Your task to perform on an android device: Open notification settings Image 0: 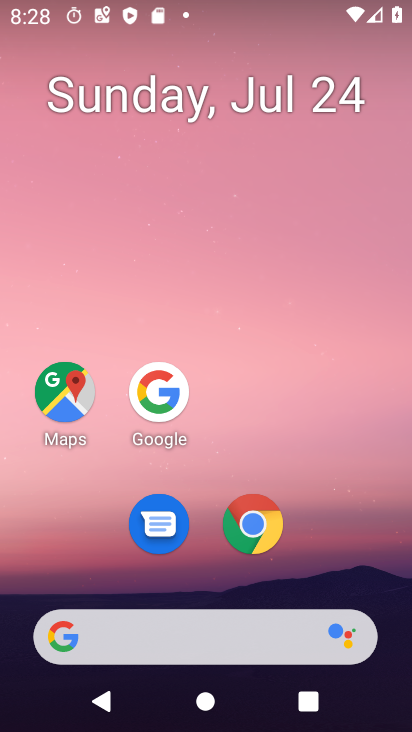
Step 0: press home button
Your task to perform on an android device: Open notification settings Image 1: 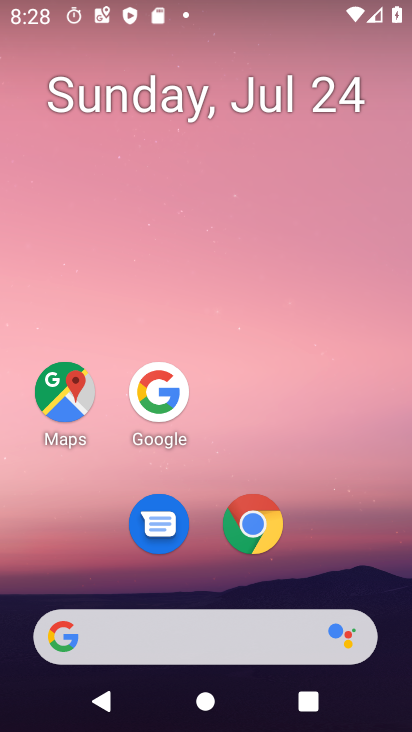
Step 1: drag from (129, 633) to (284, 52)
Your task to perform on an android device: Open notification settings Image 2: 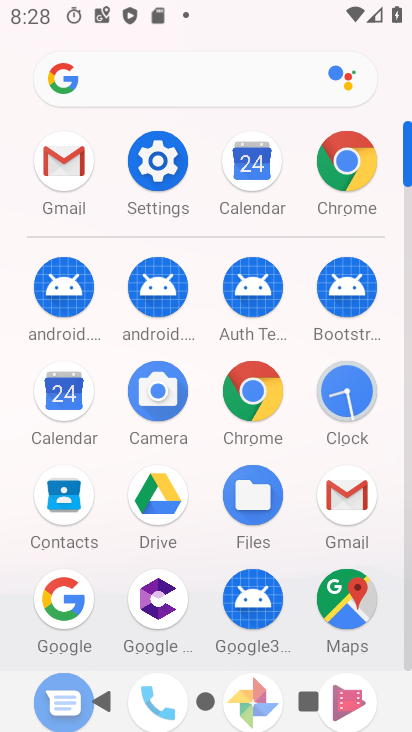
Step 2: click (157, 160)
Your task to perform on an android device: Open notification settings Image 3: 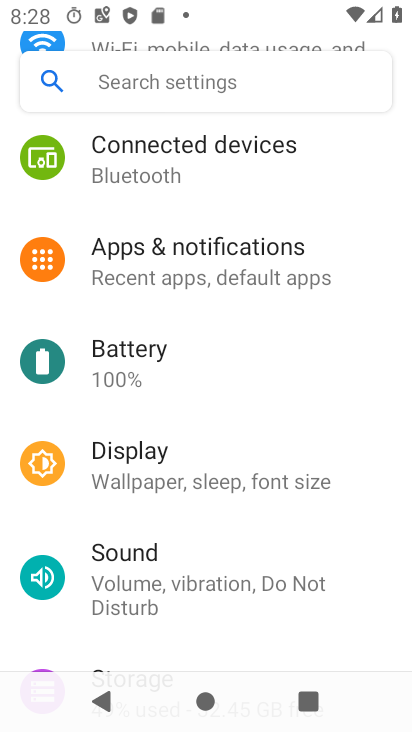
Step 3: click (257, 264)
Your task to perform on an android device: Open notification settings Image 4: 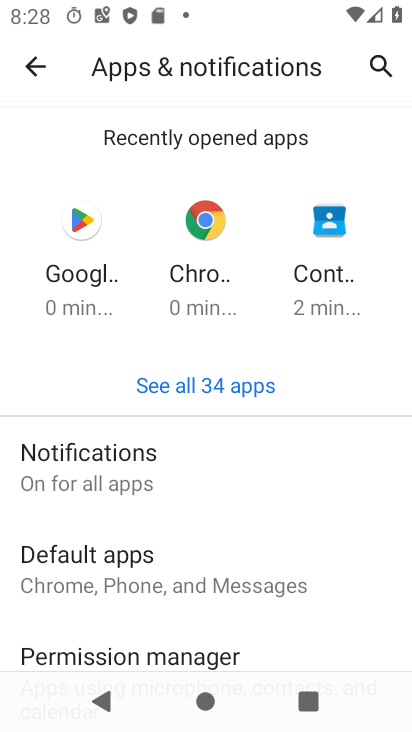
Step 4: click (122, 454)
Your task to perform on an android device: Open notification settings Image 5: 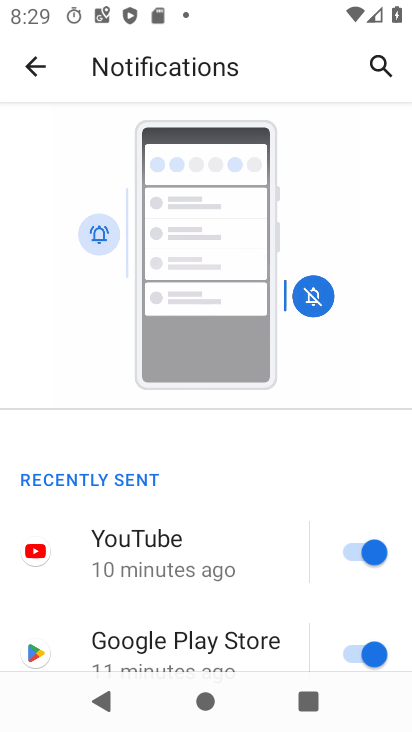
Step 5: task complete